Your task to perform on an android device: change the clock display to analog Image 0: 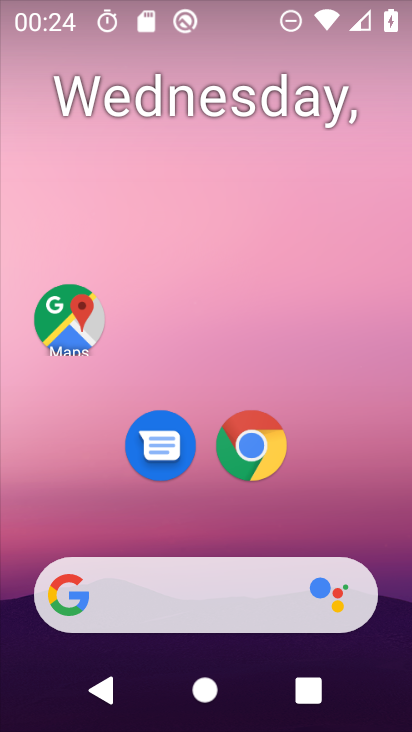
Step 0: drag from (258, 513) to (265, 8)
Your task to perform on an android device: change the clock display to analog Image 1: 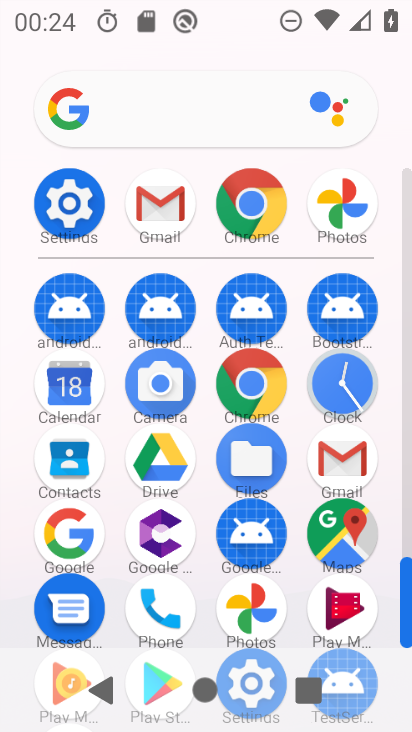
Step 1: click (331, 373)
Your task to perform on an android device: change the clock display to analog Image 2: 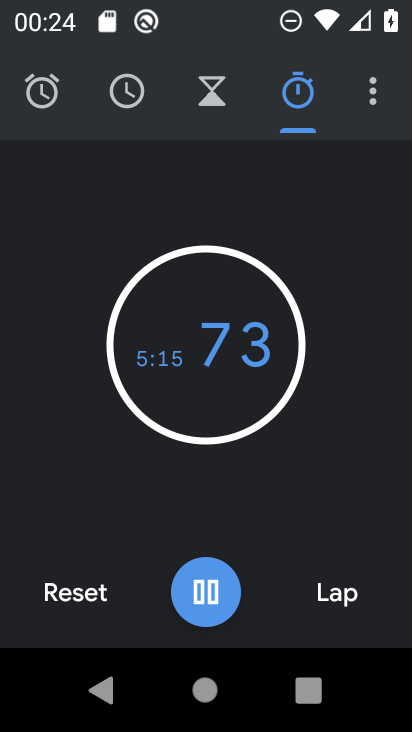
Step 2: click (362, 96)
Your task to perform on an android device: change the clock display to analog Image 3: 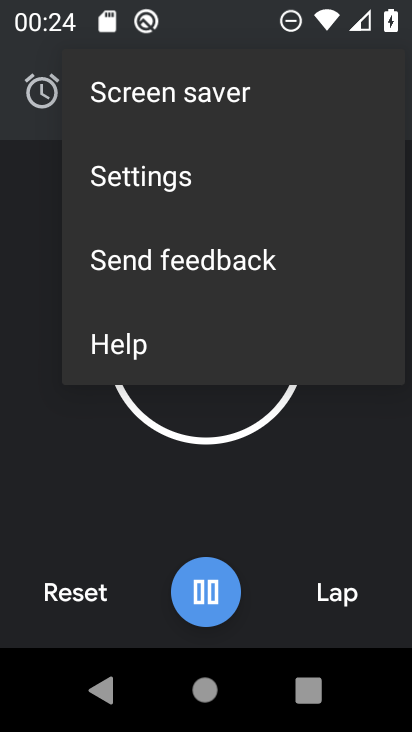
Step 3: click (145, 200)
Your task to perform on an android device: change the clock display to analog Image 4: 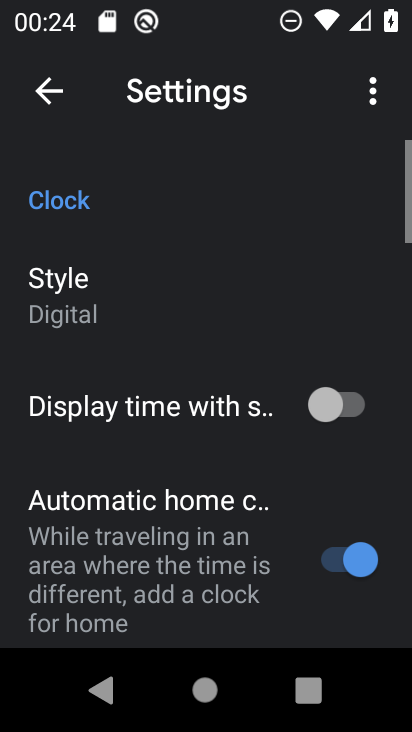
Step 4: click (67, 282)
Your task to perform on an android device: change the clock display to analog Image 5: 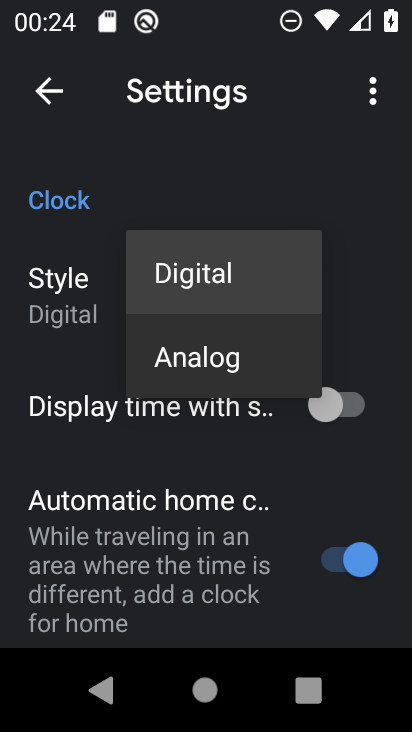
Step 5: click (166, 352)
Your task to perform on an android device: change the clock display to analog Image 6: 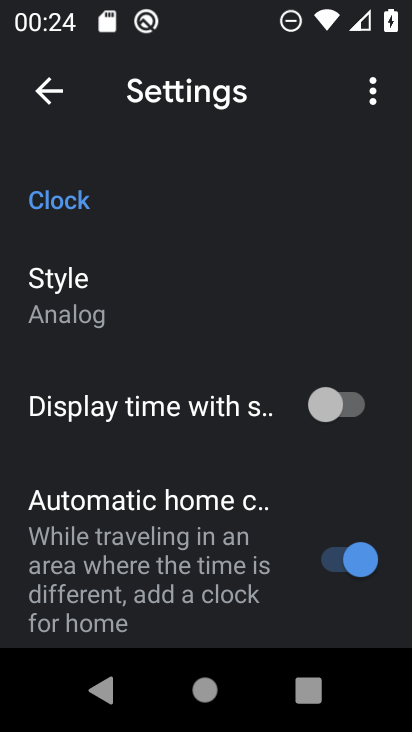
Step 6: task complete